Your task to perform on an android device: choose inbox layout in the gmail app Image 0: 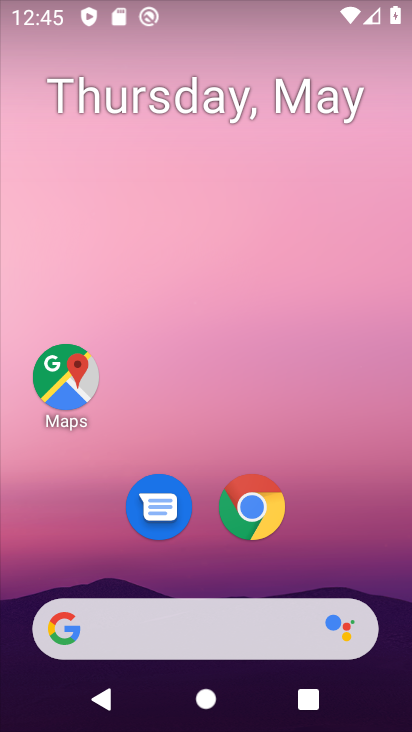
Step 0: drag from (193, 469) to (158, 86)
Your task to perform on an android device: choose inbox layout in the gmail app Image 1: 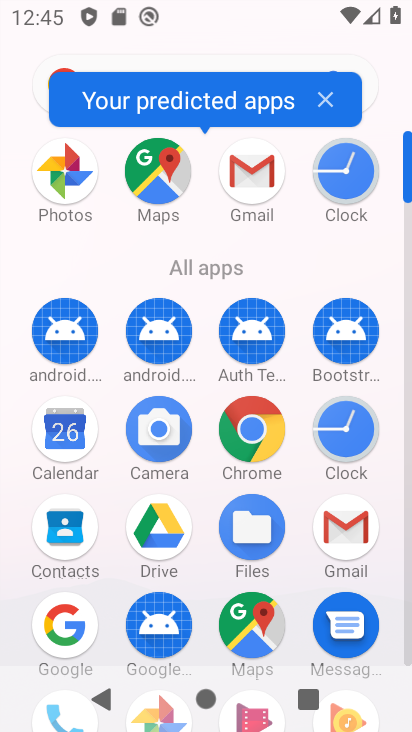
Step 1: click (351, 553)
Your task to perform on an android device: choose inbox layout in the gmail app Image 2: 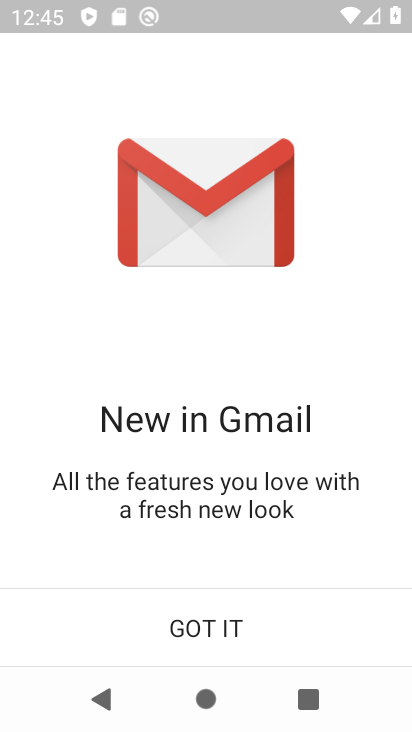
Step 2: click (280, 650)
Your task to perform on an android device: choose inbox layout in the gmail app Image 3: 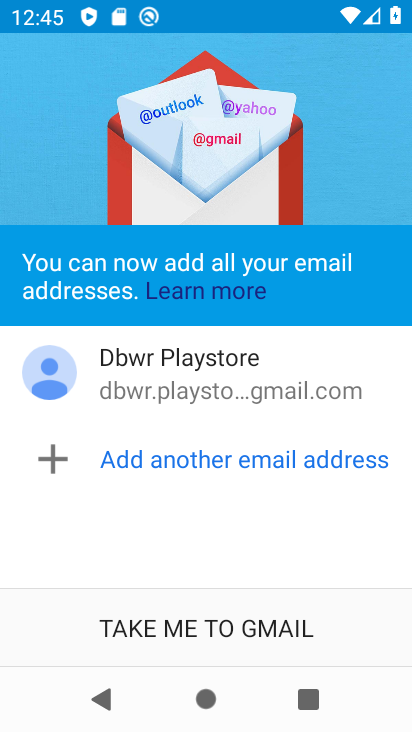
Step 3: press home button
Your task to perform on an android device: choose inbox layout in the gmail app Image 4: 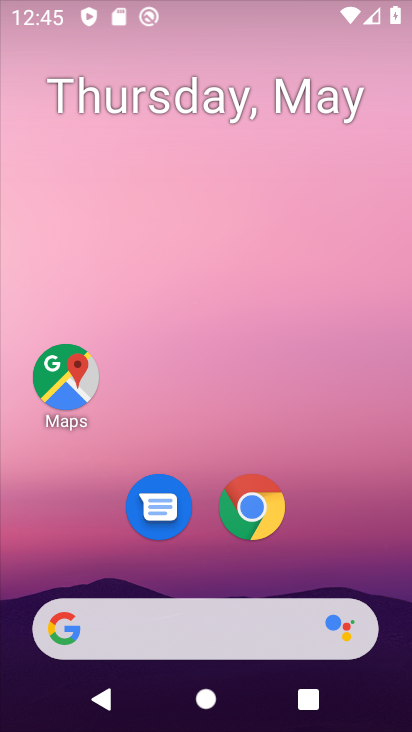
Step 4: drag from (312, 624) to (292, 138)
Your task to perform on an android device: choose inbox layout in the gmail app Image 5: 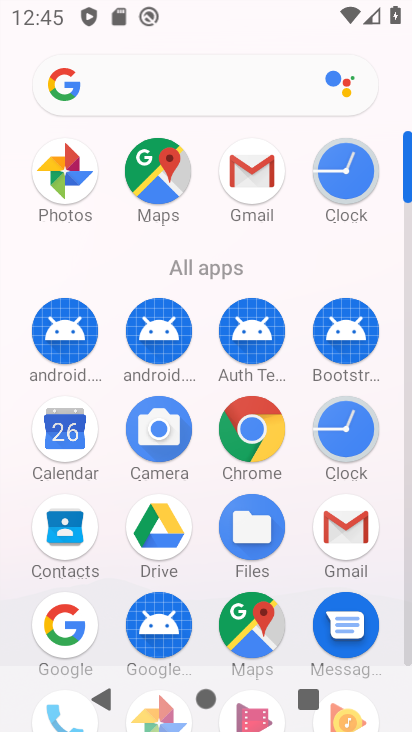
Step 5: click (364, 541)
Your task to perform on an android device: choose inbox layout in the gmail app Image 6: 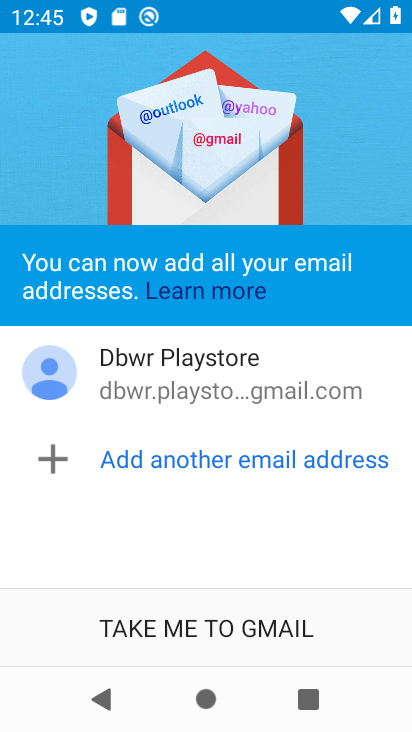
Step 6: click (223, 620)
Your task to perform on an android device: choose inbox layout in the gmail app Image 7: 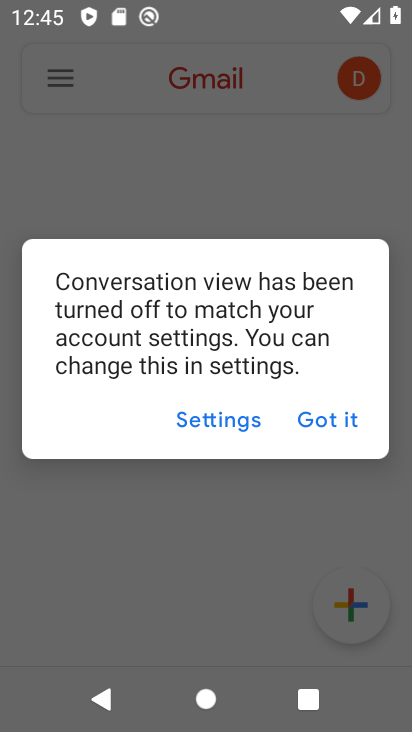
Step 7: click (248, 425)
Your task to perform on an android device: choose inbox layout in the gmail app Image 8: 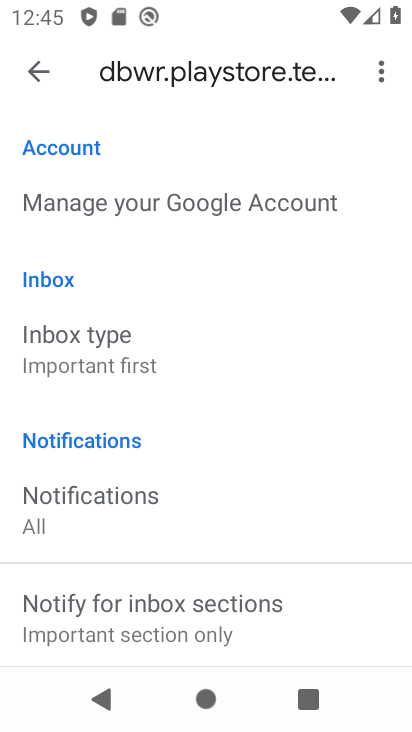
Step 8: click (186, 360)
Your task to perform on an android device: choose inbox layout in the gmail app Image 9: 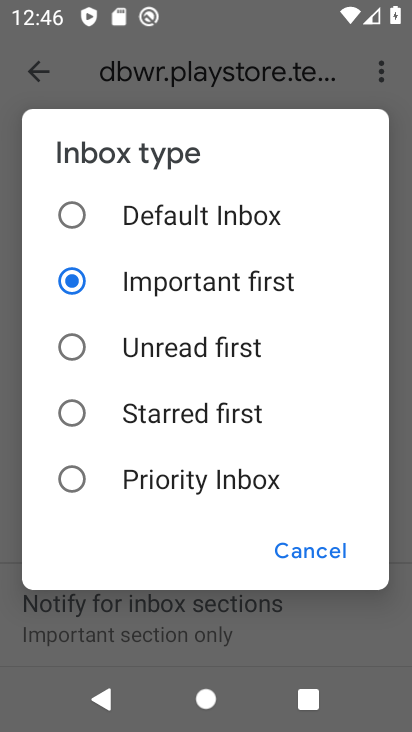
Step 9: click (62, 209)
Your task to perform on an android device: choose inbox layout in the gmail app Image 10: 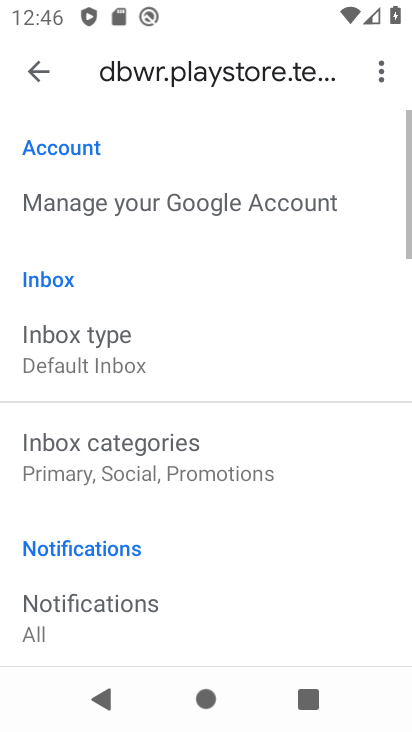
Step 10: task complete